Your task to perform on an android device: find which apps use the phone's location Image 0: 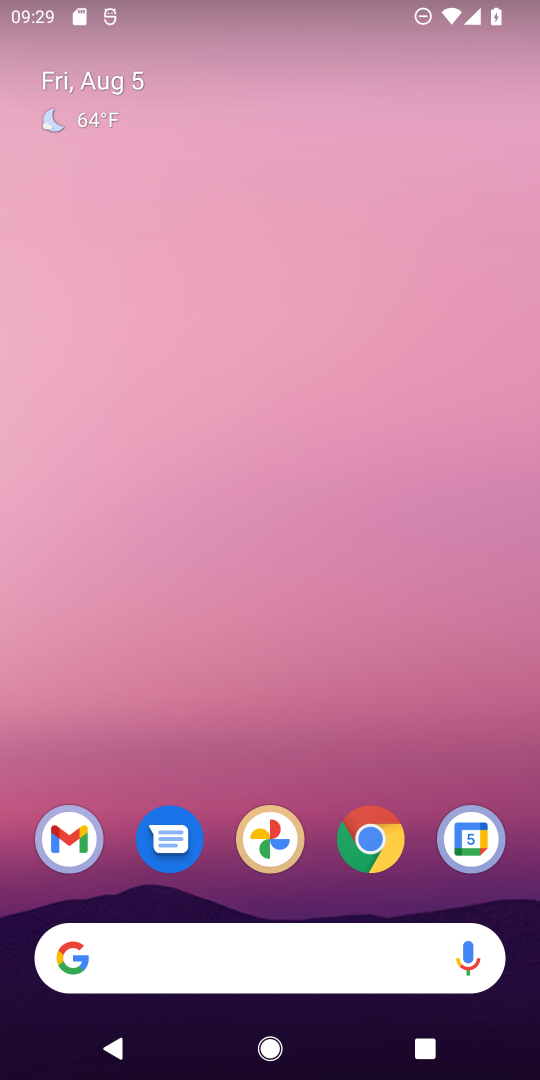
Step 0: drag from (323, 910) to (310, 149)
Your task to perform on an android device: find which apps use the phone's location Image 1: 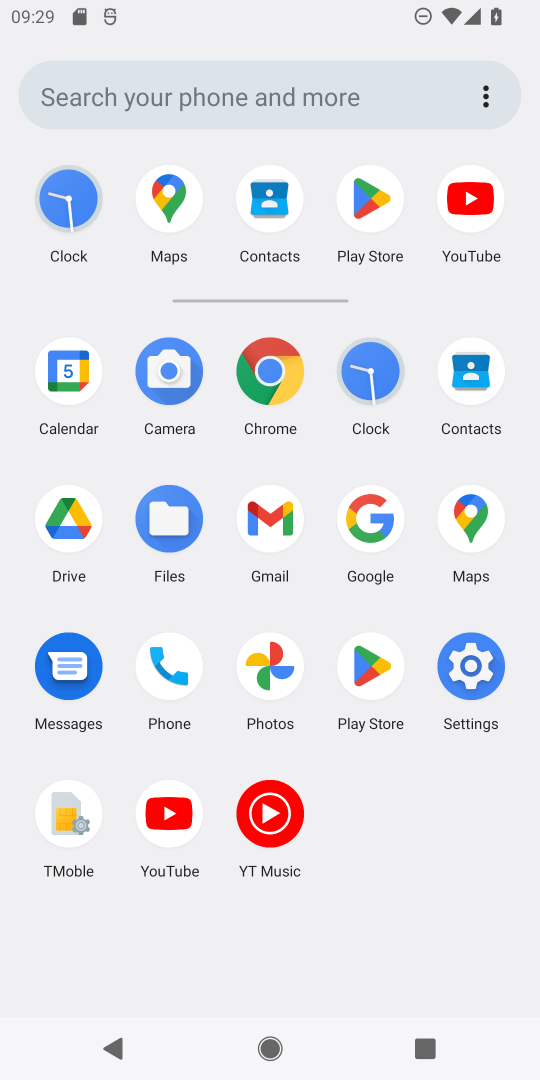
Step 1: click (466, 673)
Your task to perform on an android device: find which apps use the phone's location Image 2: 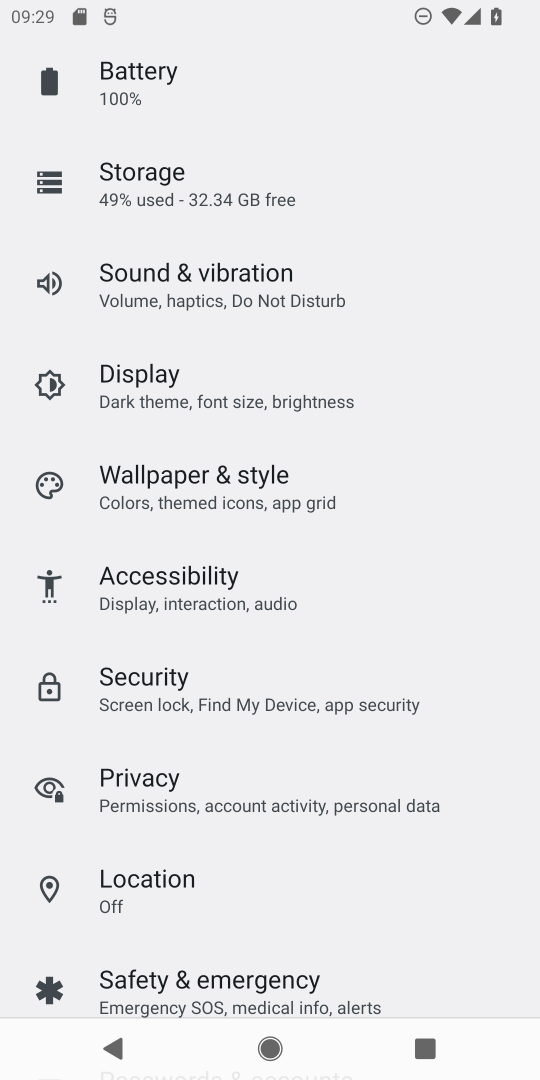
Step 2: drag from (204, 308) to (198, 620)
Your task to perform on an android device: find which apps use the phone's location Image 3: 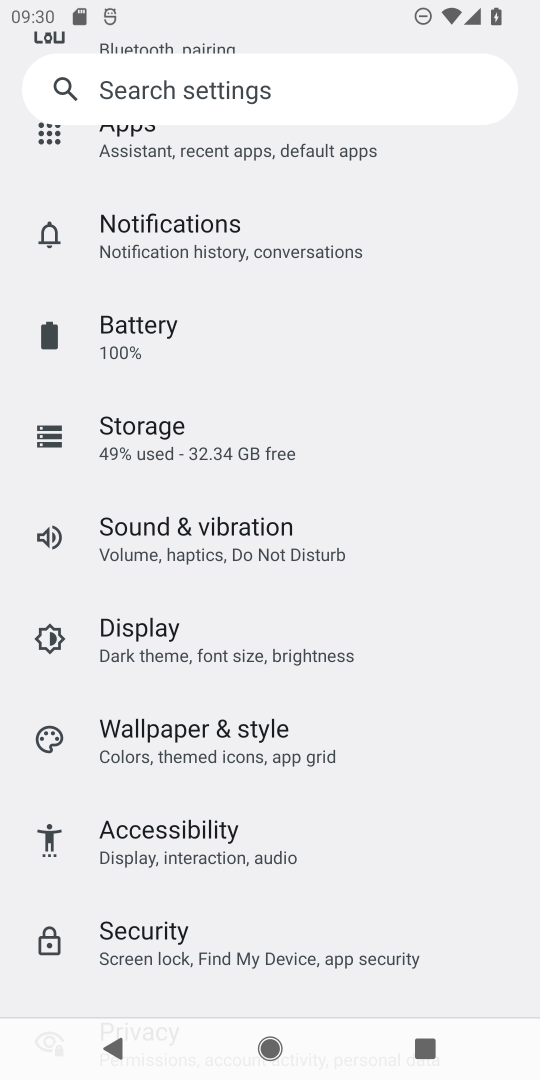
Step 3: drag from (156, 201) to (158, 901)
Your task to perform on an android device: find which apps use the phone's location Image 4: 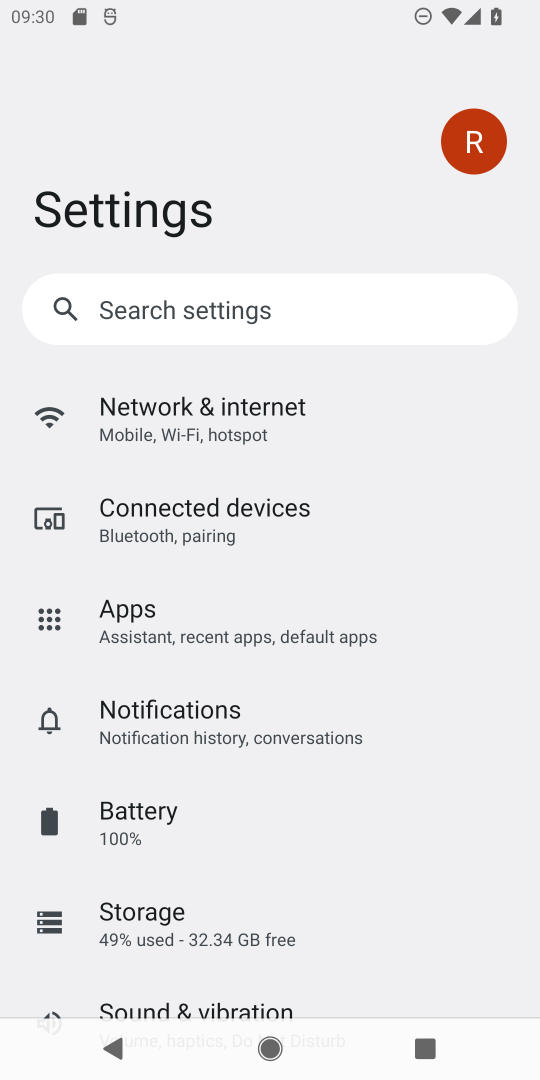
Step 4: drag from (157, 962) to (203, 494)
Your task to perform on an android device: find which apps use the phone's location Image 5: 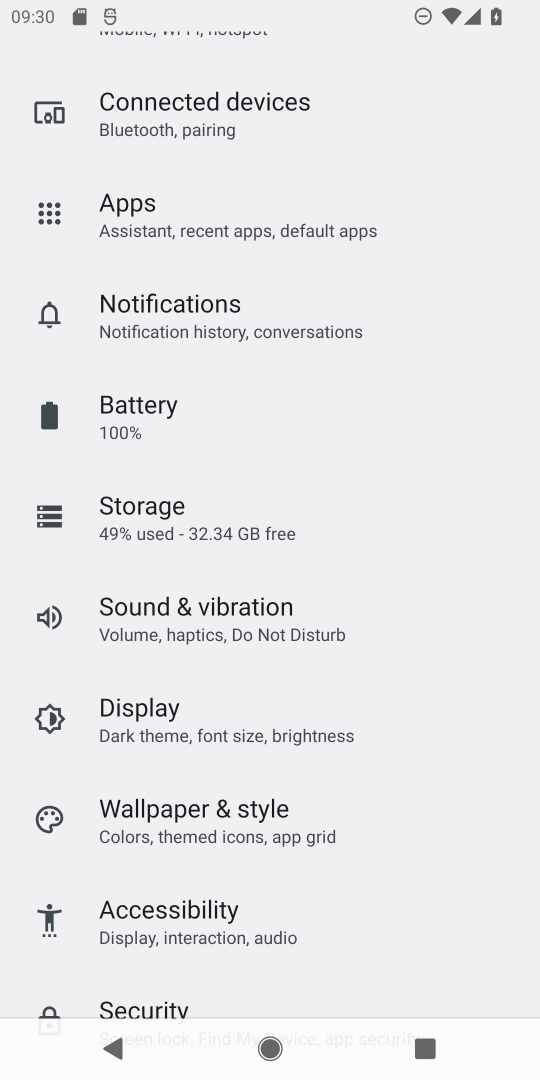
Step 5: drag from (198, 908) to (198, 395)
Your task to perform on an android device: find which apps use the phone's location Image 6: 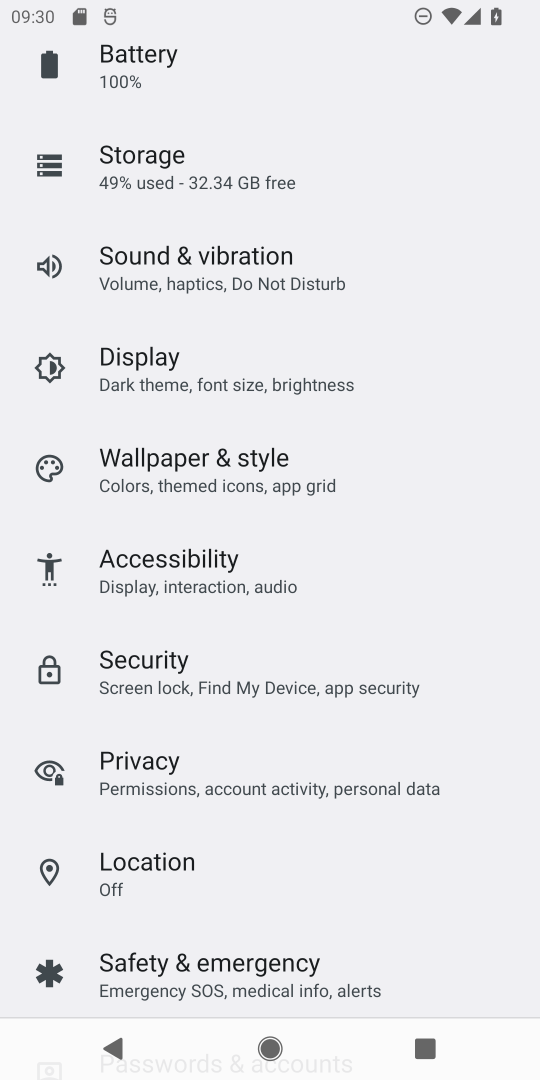
Step 6: click (144, 862)
Your task to perform on an android device: find which apps use the phone's location Image 7: 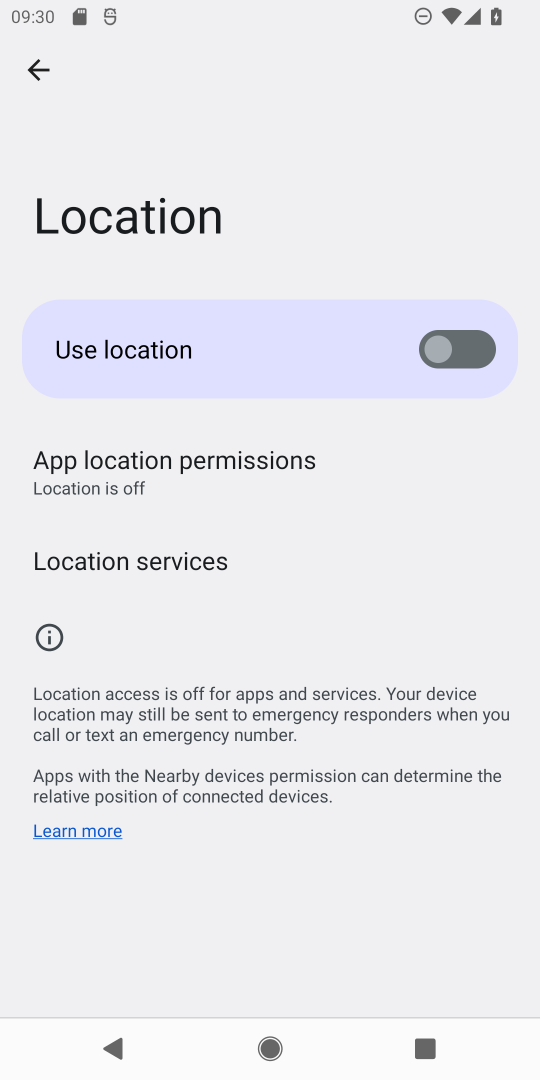
Step 7: click (142, 456)
Your task to perform on an android device: find which apps use the phone's location Image 8: 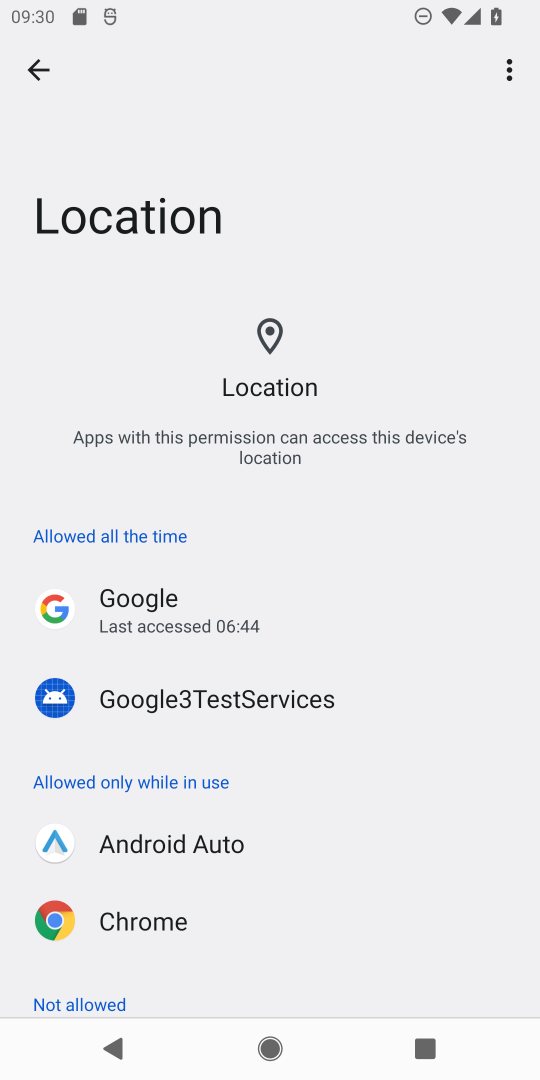
Step 8: task complete